Your task to perform on an android device: toggle notifications settings in the gmail app Image 0: 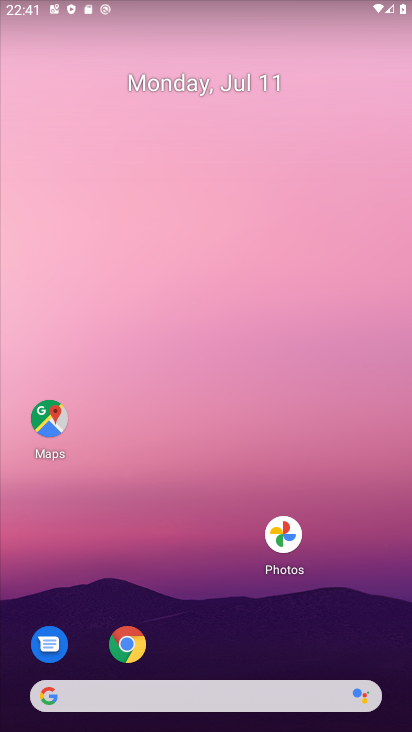
Step 0: drag from (181, 479) to (137, 334)
Your task to perform on an android device: toggle notifications settings in the gmail app Image 1: 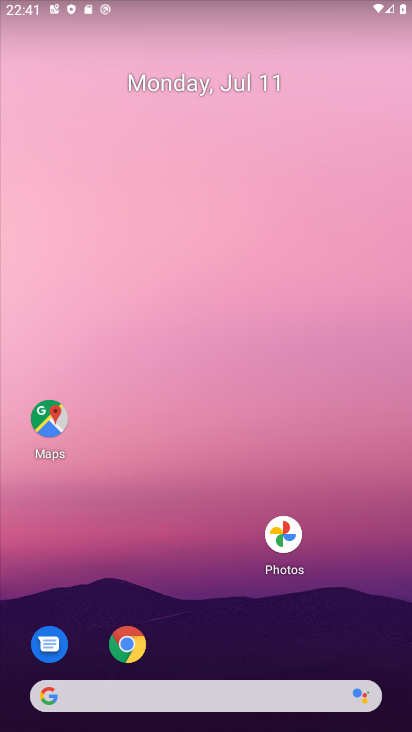
Step 1: drag from (182, 455) to (147, 209)
Your task to perform on an android device: toggle notifications settings in the gmail app Image 2: 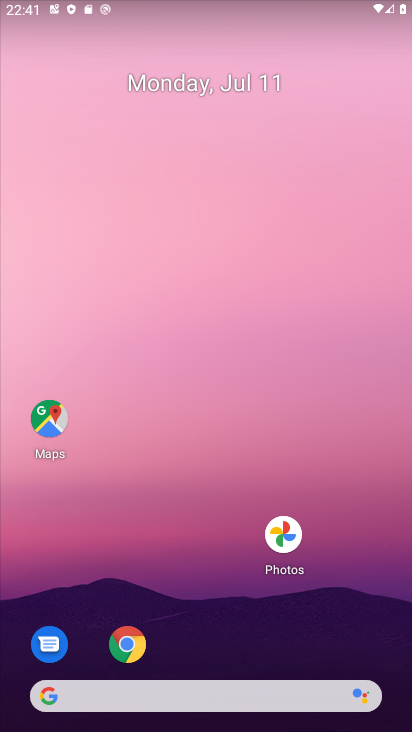
Step 2: drag from (217, 459) to (171, 216)
Your task to perform on an android device: toggle notifications settings in the gmail app Image 3: 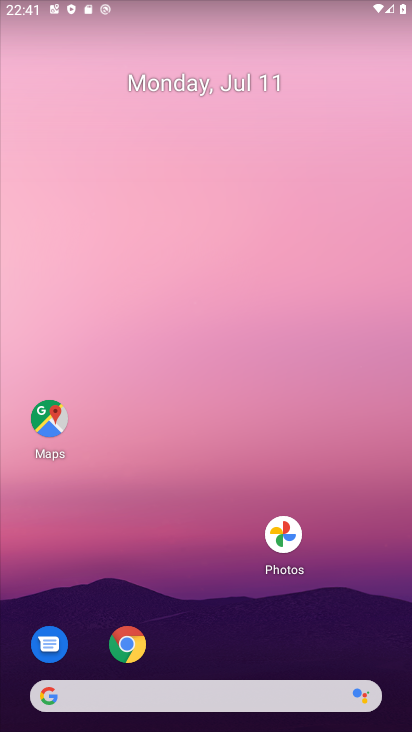
Step 3: drag from (218, 562) to (165, 117)
Your task to perform on an android device: toggle notifications settings in the gmail app Image 4: 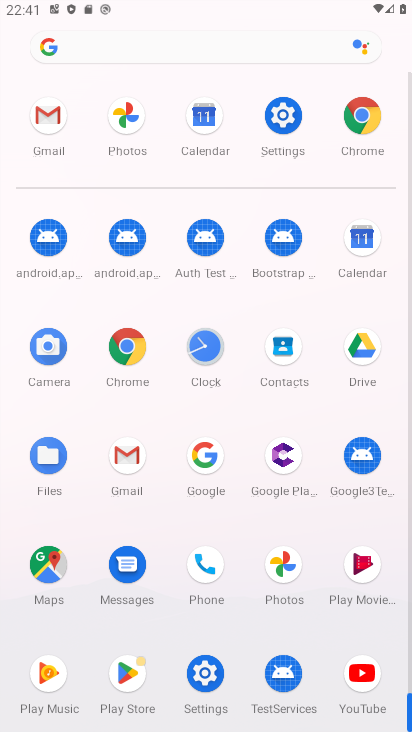
Step 4: drag from (247, 539) to (211, 141)
Your task to perform on an android device: toggle notifications settings in the gmail app Image 5: 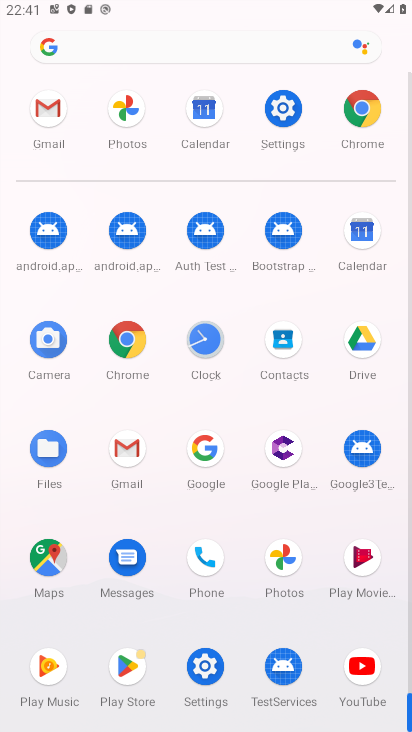
Step 5: click (109, 457)
Your task to perform on an android device: toggle notifications settings in the gmail app Image 6: 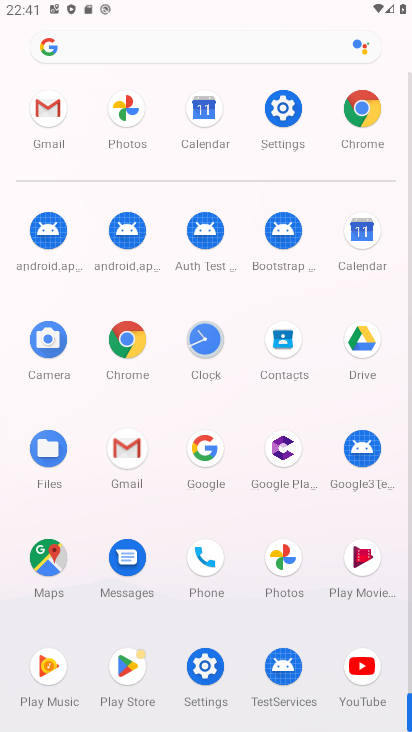
Step 6: click (119, 447)
Your task to perform on an android device: toggle notifications settings in the gmail app Image 7: 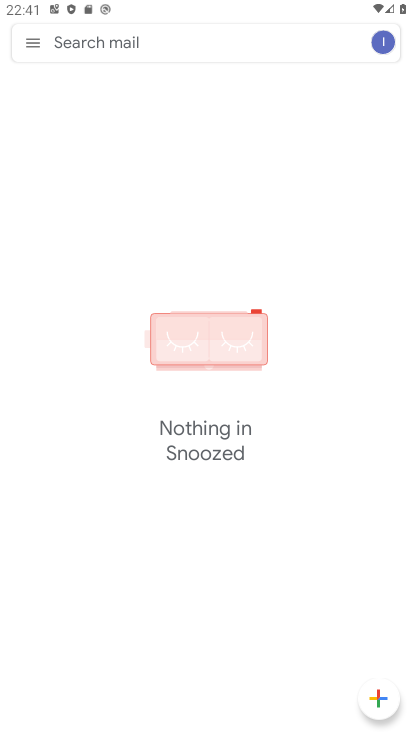
Step 7: click (120, 446)
Your task to perform on an android device: toggle notifications settings in the gmail app Image 8: 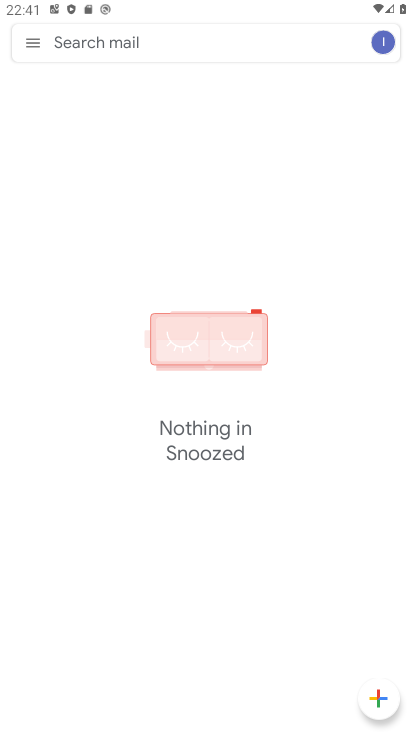
Step 8: click (33, 44)
Your task to perform on an android device: toggle notifications settings in the gmail app Image 9: 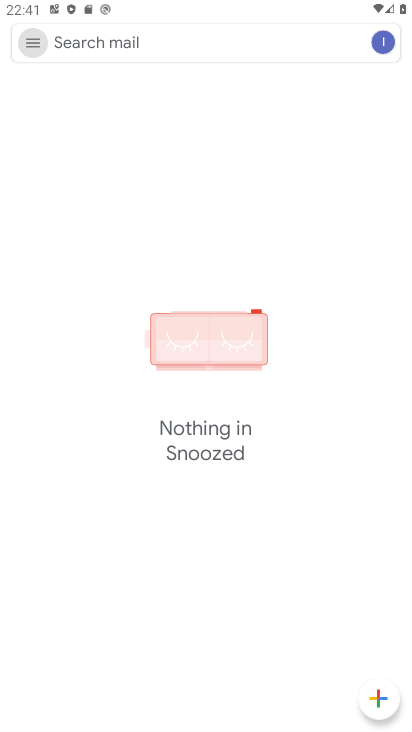
Step 9: click (33, 44)
Your task to perform on an android device: toggle notifications settings in the gmail app Image 10: 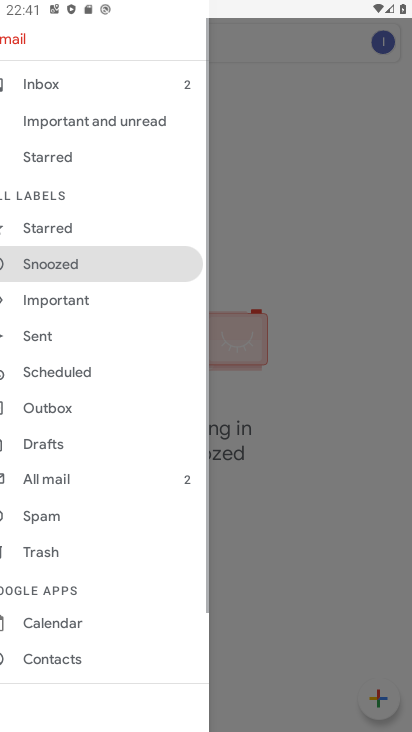
Step 10: click (34, 45)
Your task to perform on an android device: toggle notifications settings in the gmail app Image 11: 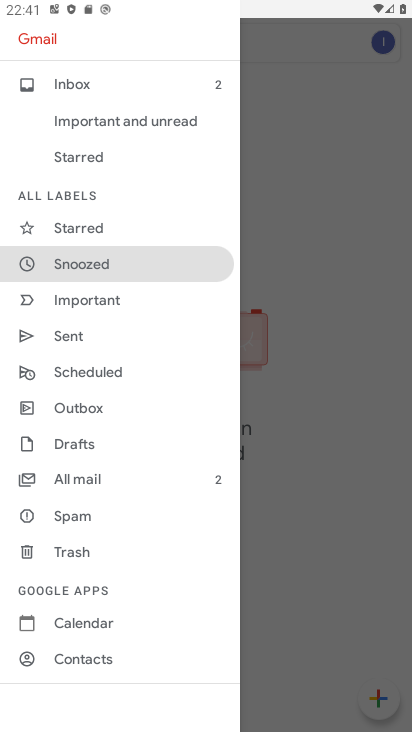
Step 11: drag from (88, 567) to (143, 118)
Your task to perform on an android device: toggle notifications settings in the gmail app Image 12: 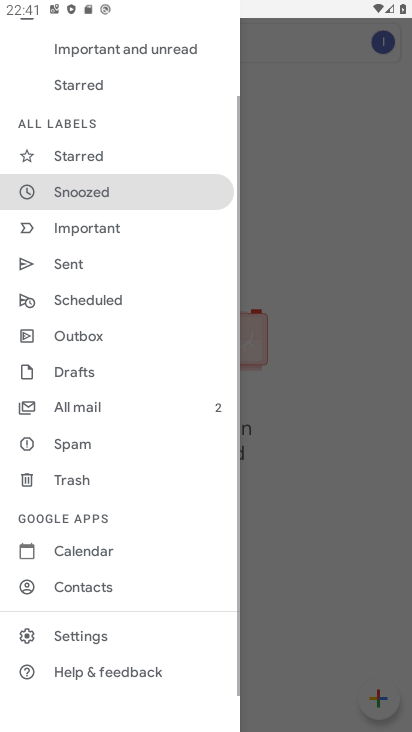
Step 12: click (90, 633)
Your task to perform on an android device: toggle notifications settings in the gmail app Image 13: 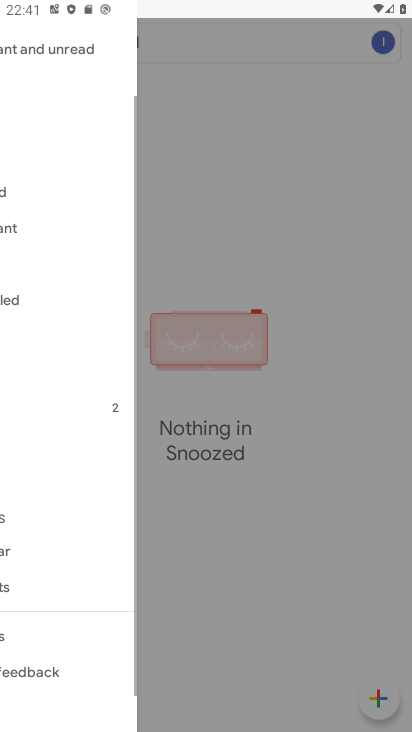
Step 13: click (89, 635)
Your task to perform on an android device: toggle notifications settings in the gmail app Image 14: 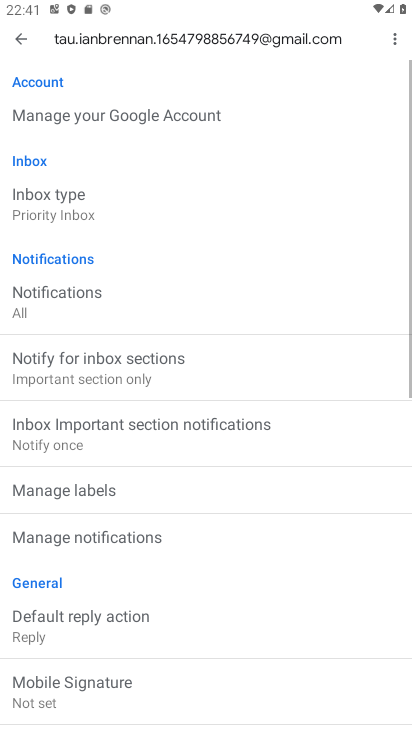
Step 14: click (60, 296)
Your task to perform on an android device: toggle notifications settings in the gmail app Image 15: 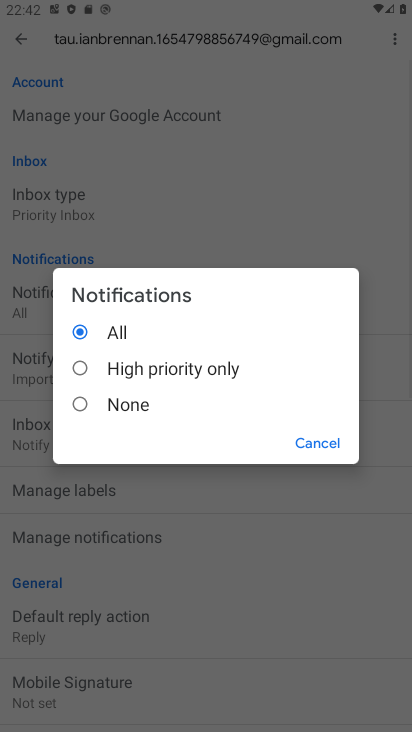
Step 15: click (62, 297)
Your task to perform on an android device: toggle notifications settings in the gmail app Image 16: 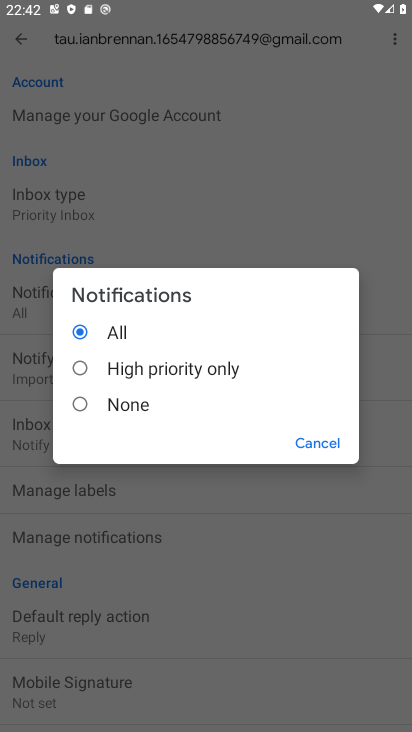
Step 16: click (291, 330)
Your task to perform on an android device: toggle notifications settings in the gmail app Image 17: 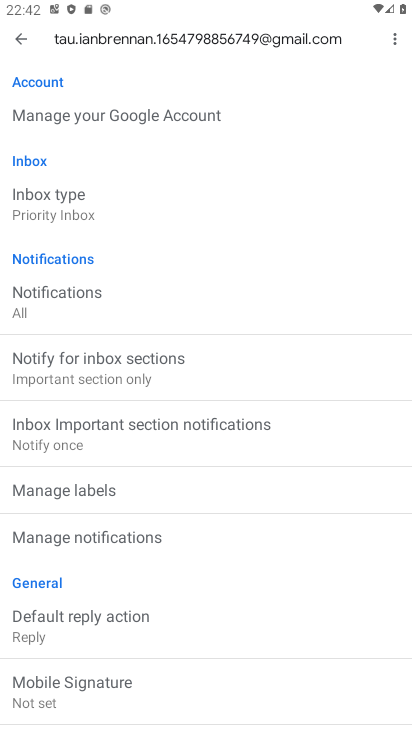
Step 17: click (46, 285)
Your task to perform on an android device: toggle notifications settings in the gmail app Image 18: 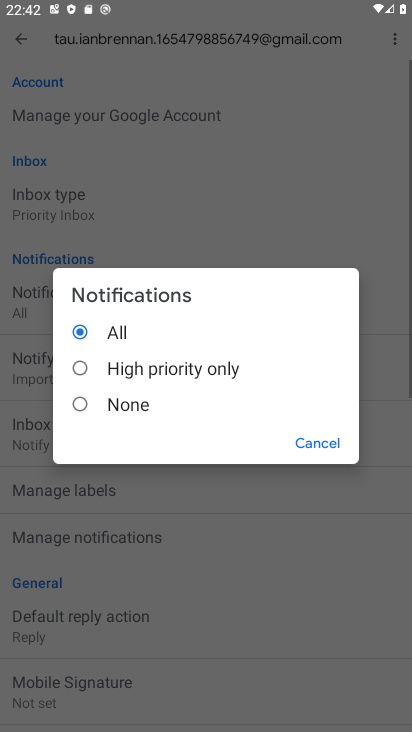
Step 18: click (46, 288)
Your task to perform on an android device: toggle notifications settings in the gmail app Image 19: 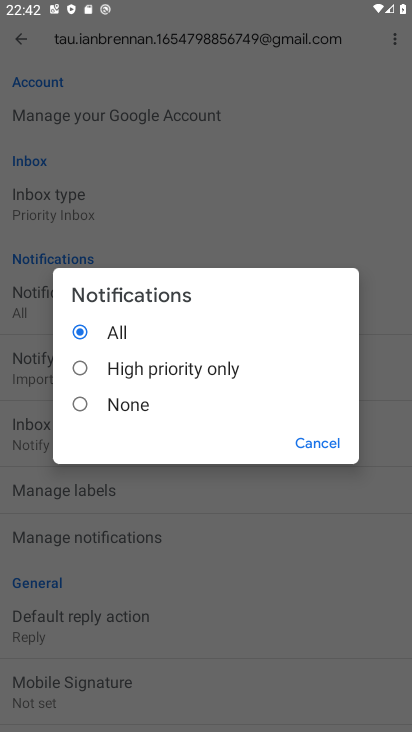
Step 19: click (75, 370)
Your task to perform on an android device: toggle notifications settings in the gmail app Image 20: 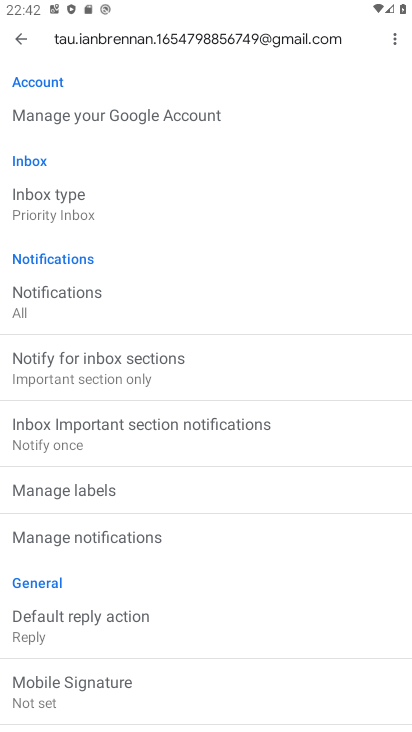
Step 20: click (83, 360)
Your task to perform on an android device: toggle notifications settings in the gmail app Image 21: 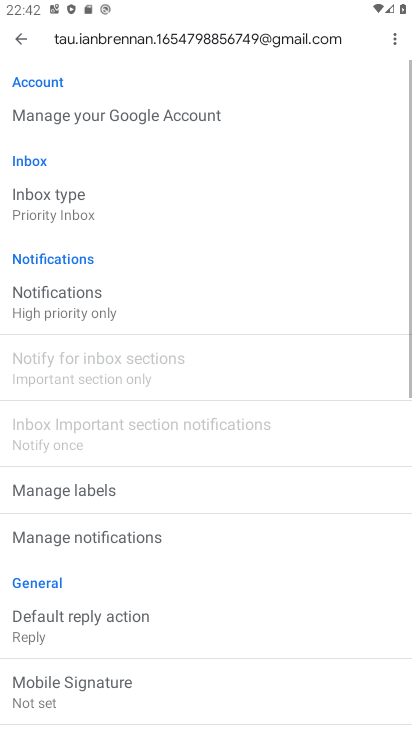
Step 21: click (88, 359)
Your task to perform on an android device: toggle notifications settings in the gmail app Image 22: 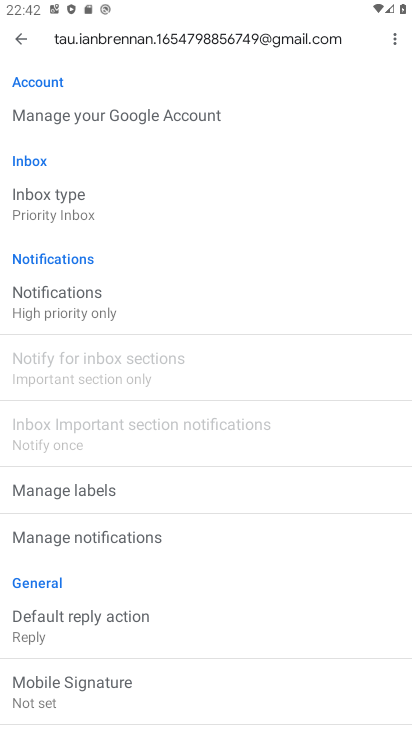
Step 22: task complete